Your task to perform on an android device: What's the weather going to be tomorrow? Image 0: 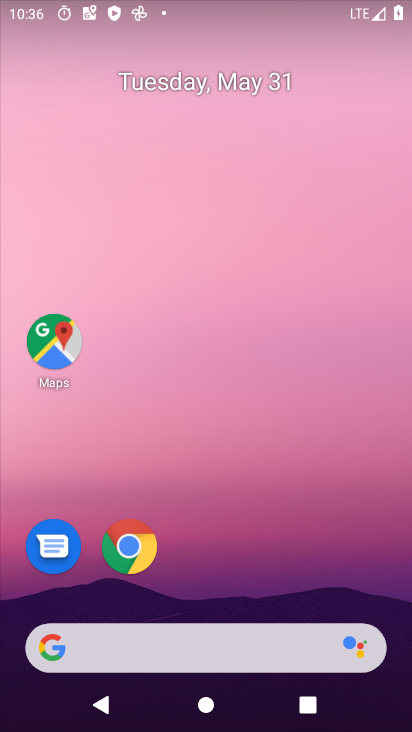
Step 0: click (224, 645)
Your task to perform on an android device: What's the weather going to be tomorrow? Image 1: 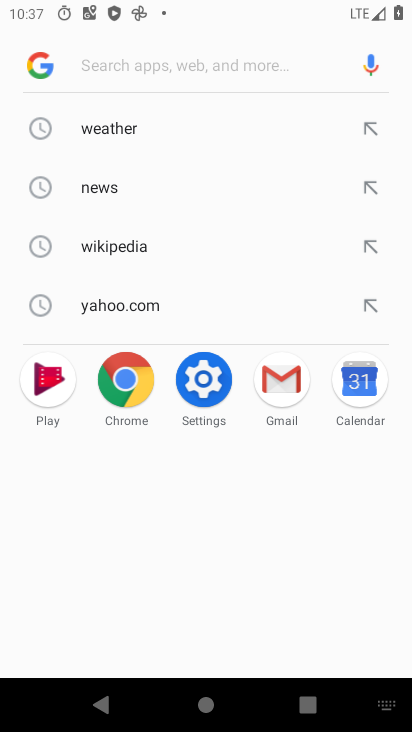
Step 1: click (340, 122)
Your task to perform on an android device: What's the weather going to be tomorrow? Image 2: 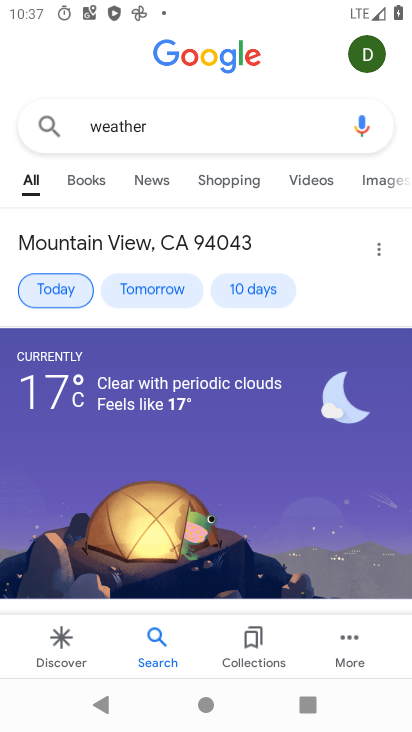
Step 2: click (158, 289)
Your task to perform on an android device: What's the weather going to be tomorrow? Image 3: 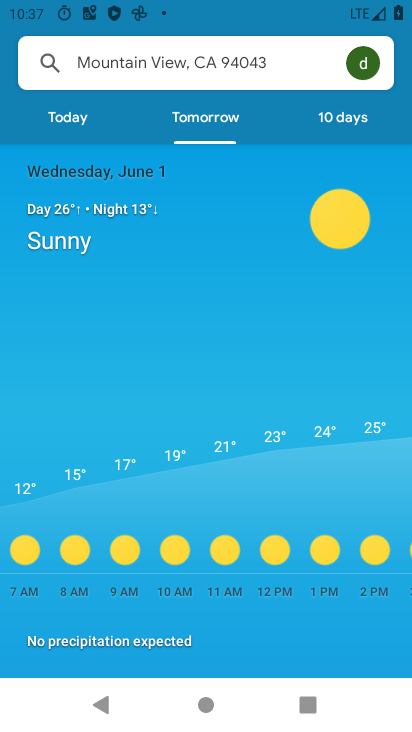
Step 3: task complete